Your task to perform on an android device: Go to display settings Image 0: 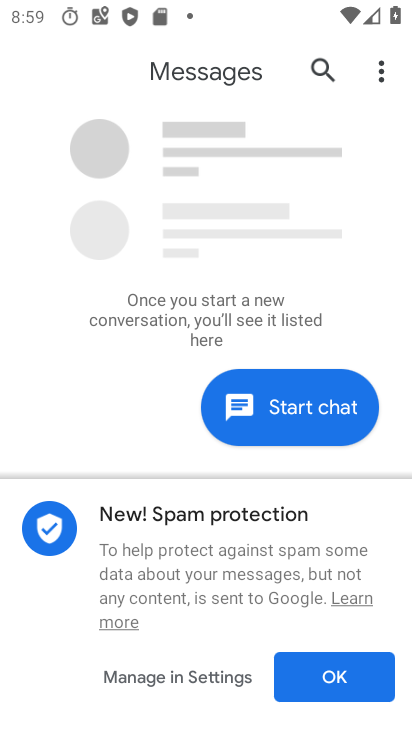
Step 0: press home button
Your task to perform on an android device: Go to display settings Image 1: 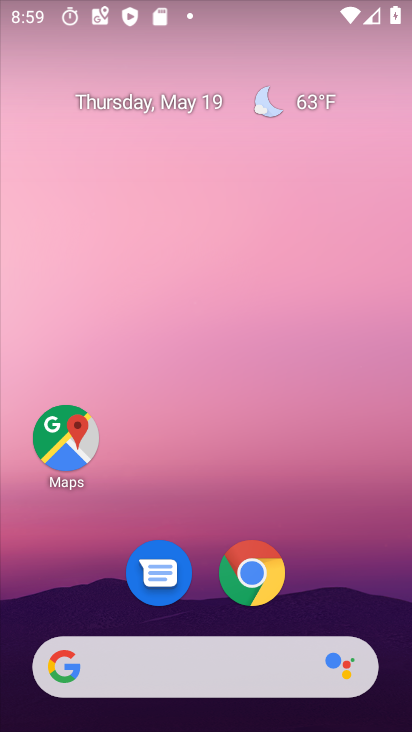
Step 1: drag from (337, 607) to (270, 6)
Your task to perform on an android device: Go to display settings Image 2: 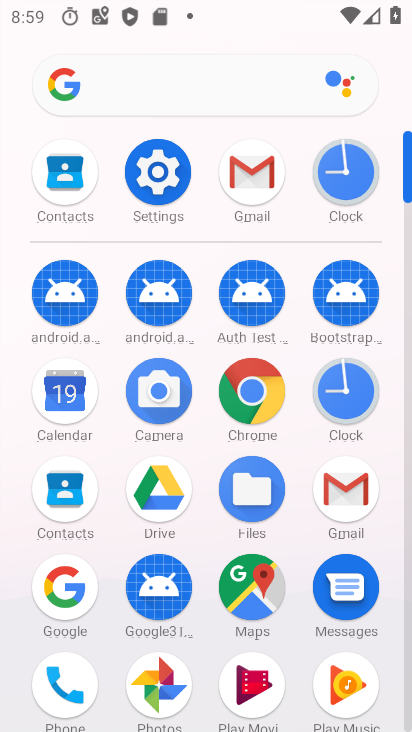
Step 2: click (155, 172)
Your task to perform on an android device: Go to display settings Image 3: 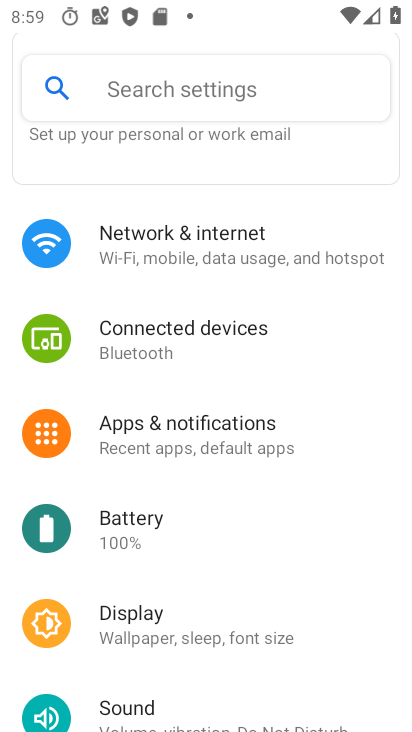
Step 3: click (123, 634)
Your task to perform on an android device: Go to display settings Image 4: 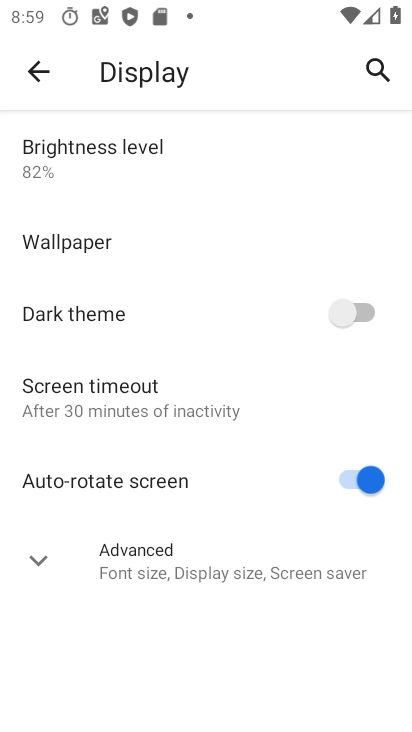
Step 4: task complete